Your task to perform on an android device: turn off airplane mode Image 0: 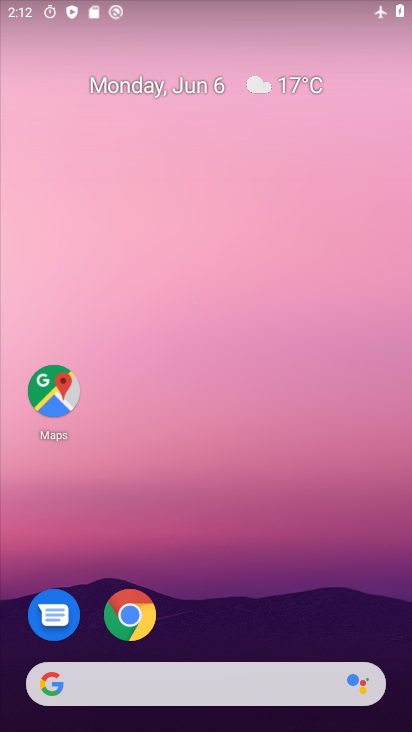
Step 0: click (328, 119)
Your task to perform on an android device: turn off airplane mode Image 1: 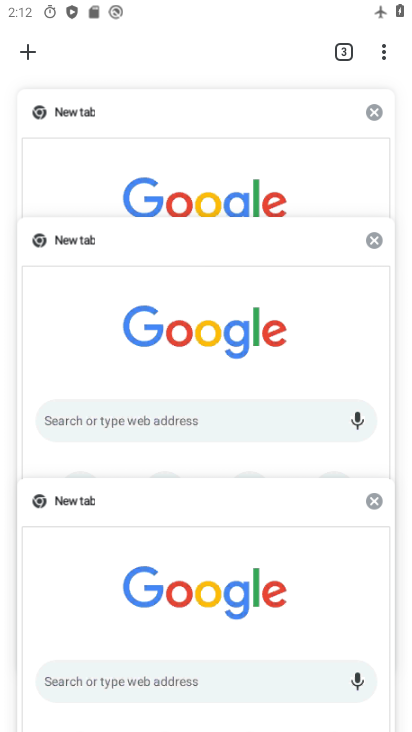
Step 1: drag from (259, 543) to (336, 339)
Your task to perform on an android device: turn off airplane mode Image 2: 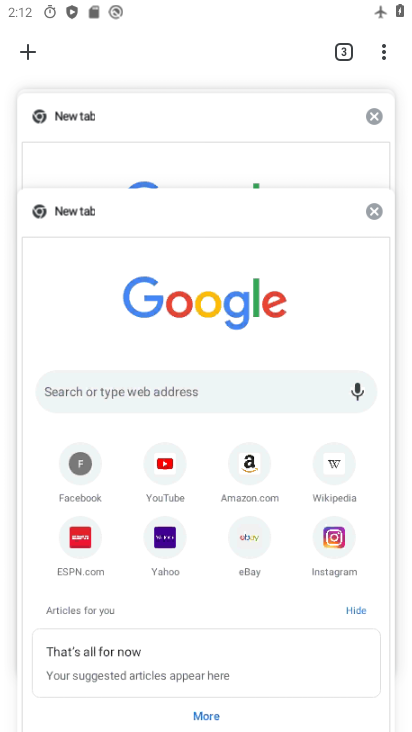
Step 2: click (365, 217)
Your task to perform on an android device: turn off airplane mode Image 3: 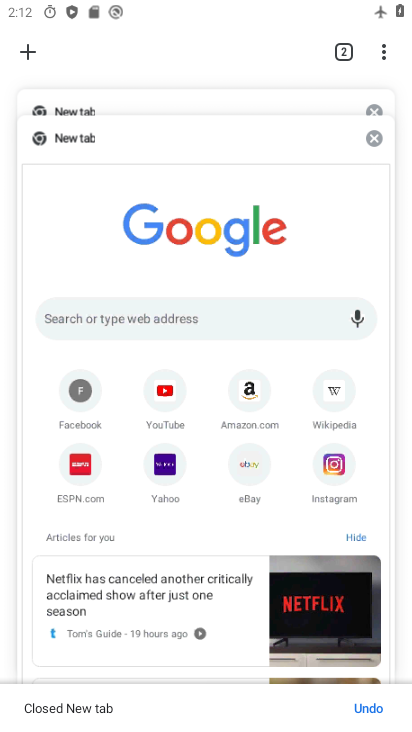
Step 3: press home button
Your task to perform on an android device: turn off airplane mode Image 4: 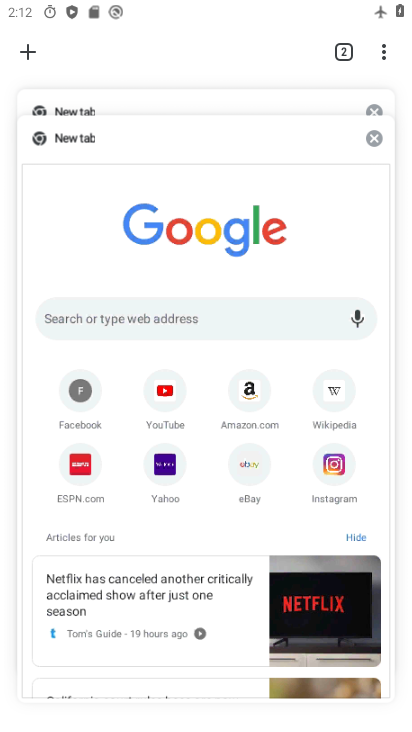
Step 4: drag from (159, 484) to (257, 112)
Your task to perform on an android device: turn off airplane mode Image 5: 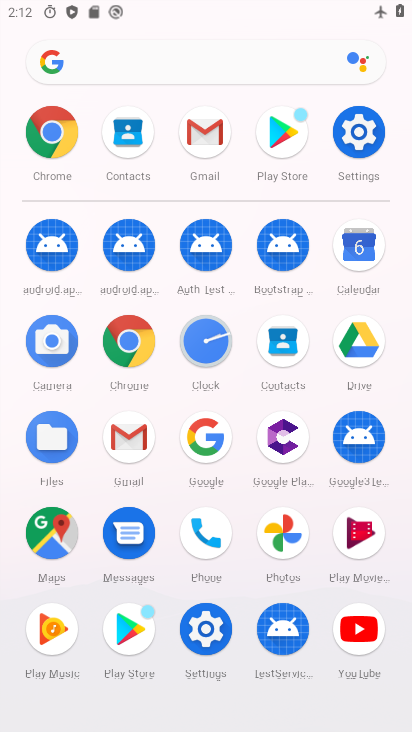
Step 5: click (362, 118)
Your task to perform on an android device: turn off airplane mode Image 6: 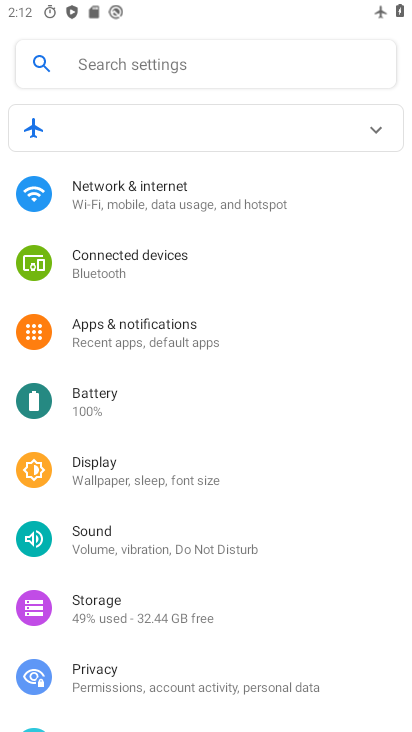
Step 6: click (218, 220)
Your task to perform on an android device: turn off airplane mode Image 7: 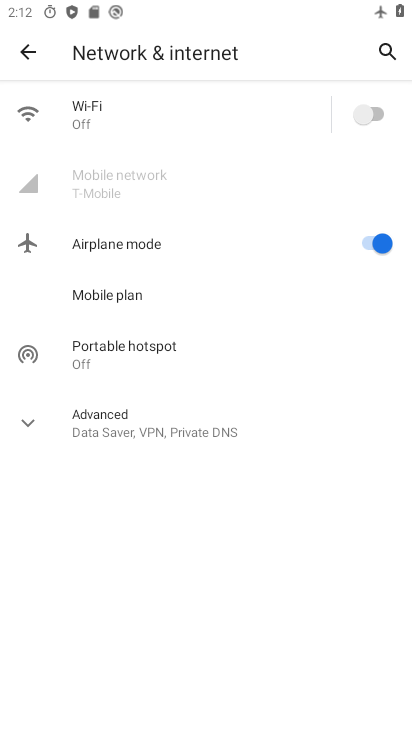
Step 7: click (369, 230)
Your task to perform on an android device: turn off airplane mode Image 8: 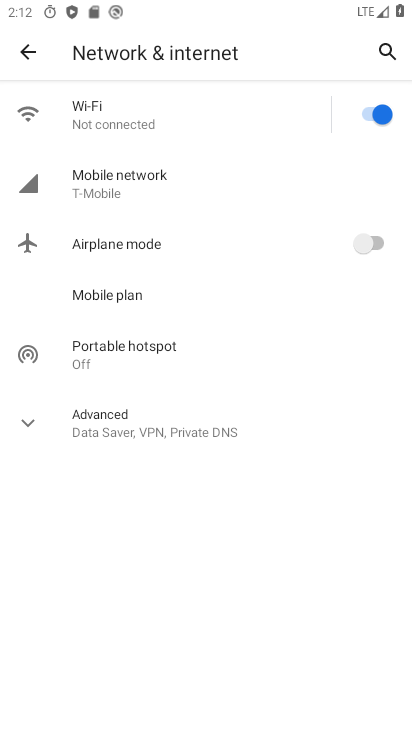
Step 8: task complete